Your task to perform on an android device: open chrome and create a bookmark for the current page Image 0: 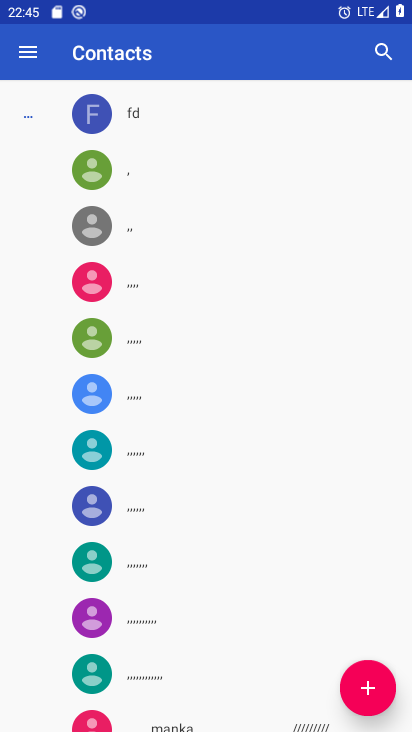
Step 0: press home button
Your task to perform on an android device: open chrome and create a bookmark for the current page Image 1: 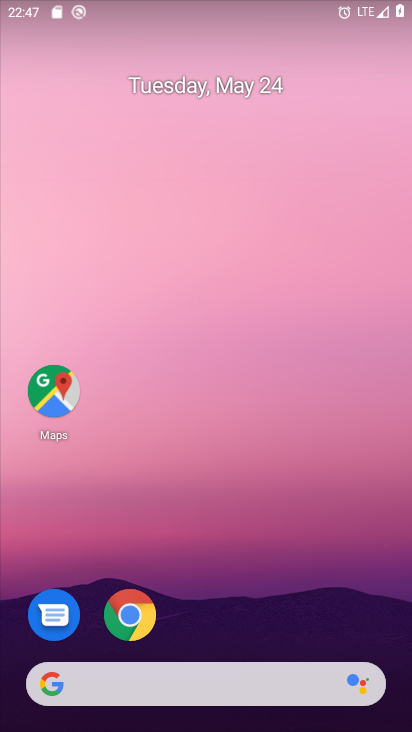
Step 1: click (125, 614)
Your task to perform on an android device: open chrome and create a bookmark for the current page Image 2: 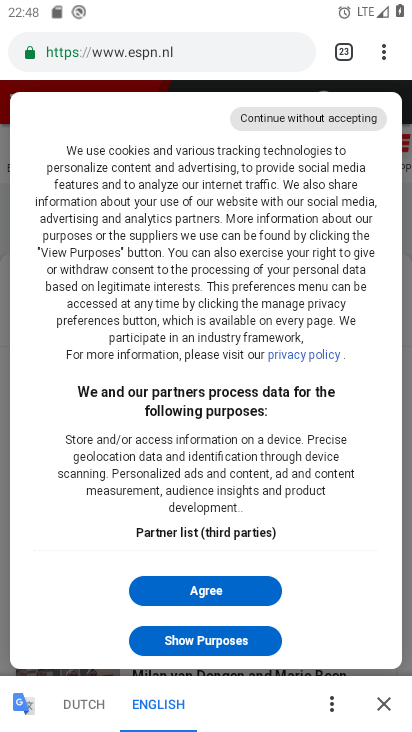
Step 2: click (381, 43)
Your task to perform on an android device: open chrome and create a bookmark for the current page Image 3: 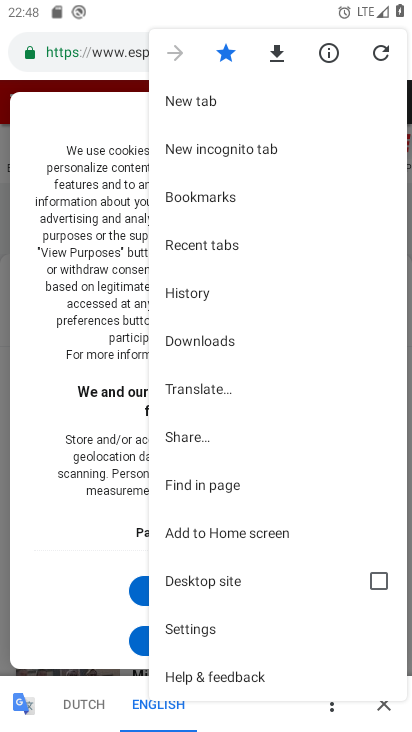
Step 3: task complete